Your task to perform on an android device: clear all cookies in the chrome app Image 0: 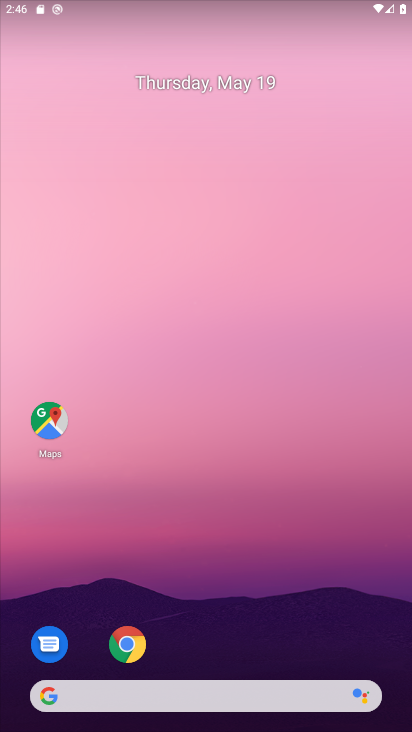
Step 0: drag from (239, 633) to (279, 244)
Your task to perform on an android device: clear all cookies in the chrome app Image 1: 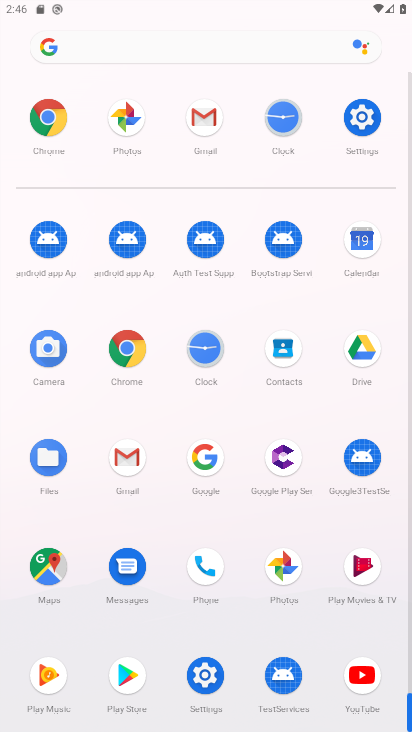
Step 1: click (133, 342)
Your task to perform on an android device: clear all cookies in the chrome app Image 2: 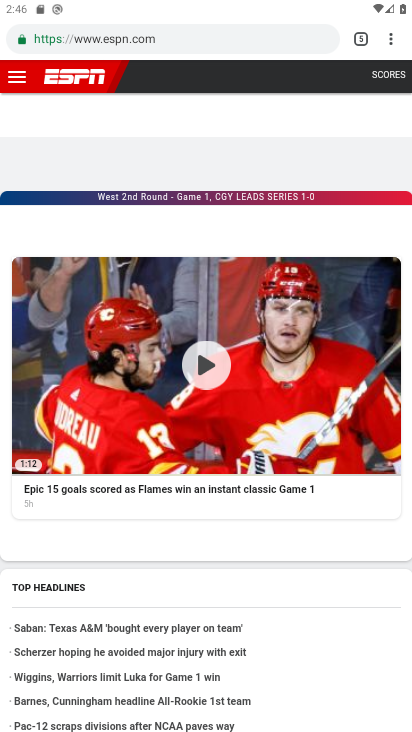
Step 2: click (389, 45)
Your task to perform on an android device: clear all cookies in the chrome app Image 3: 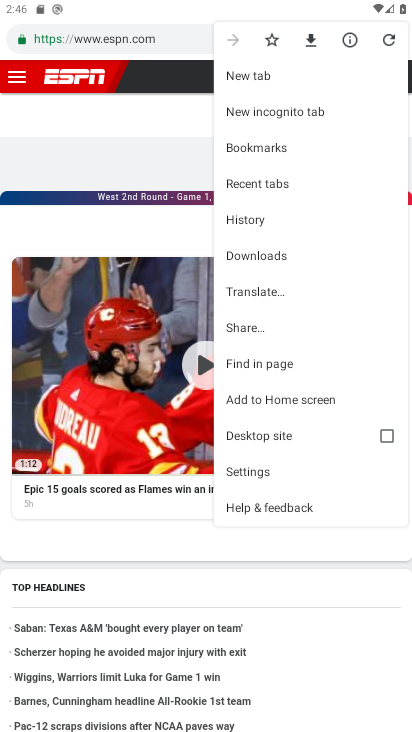
Step 3: click (269, 469)
Your task to perform on an android device: clear all cookies in the chrome app Image 4: 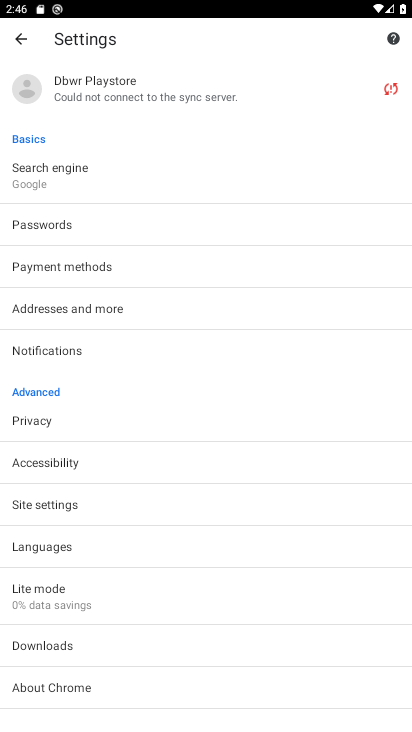
Step 4: click (93, 506)
Your task to perform on an android device: clear all cookies in the chrome app Image 5: 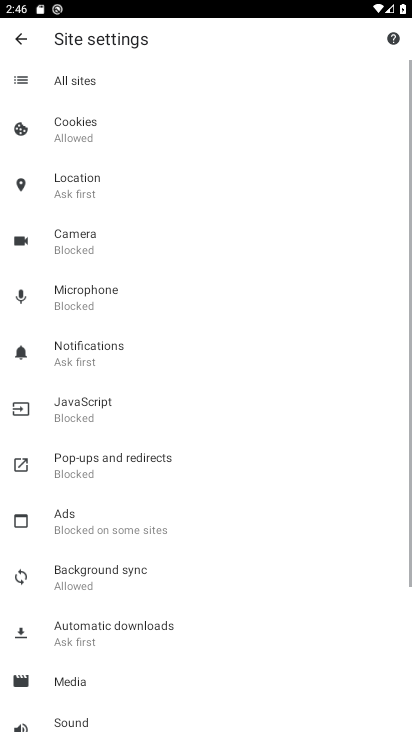
Step 5: click (198, 119)
Your task to perform on an android device: clear all cookies in the chrome app Image 6: 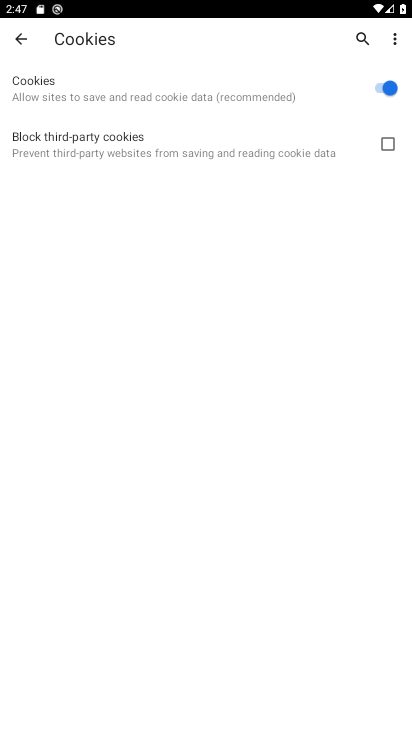
Step 6: task complete